Your task to perform on an android device: Open settings on Google Maps Image 0: 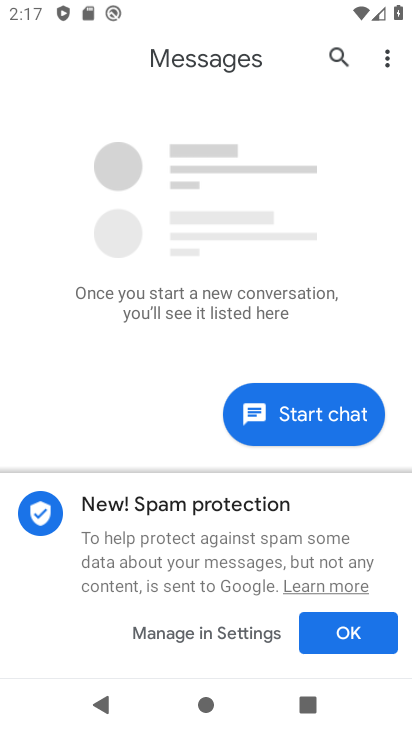
Step 0: press home button
Your task to perform on an android device: Open settings on Google Maps Image 1: 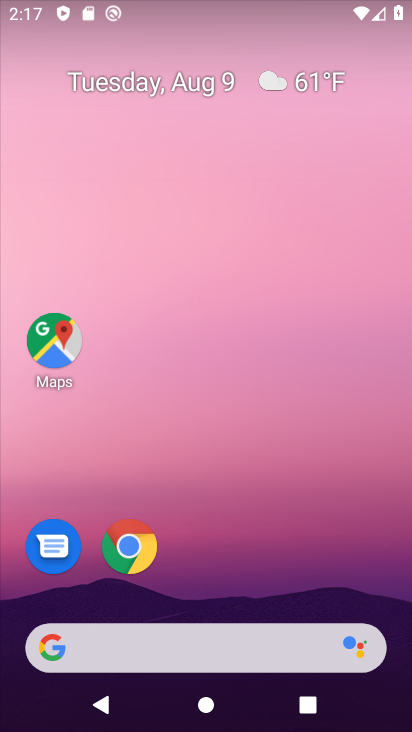
Step 1: click (60, 337)
Your task to perform on an android device: Open settings on Google Maps Image 2: 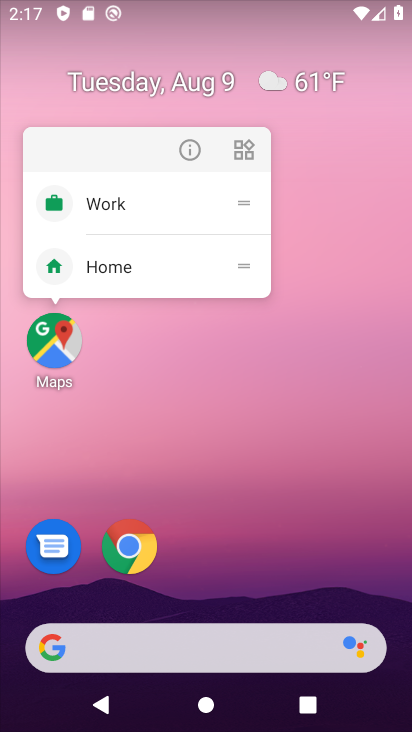
Step 2: click (60, 337)
Your task to perform on an android device: Open settings on Google Maps Image 3: 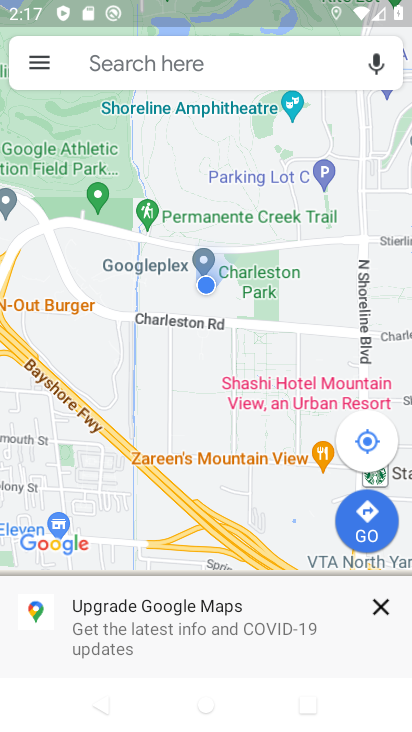
Step 3: click (27, 43)
Your task to perform on an android device: Open settings on Google Maps Image 4: 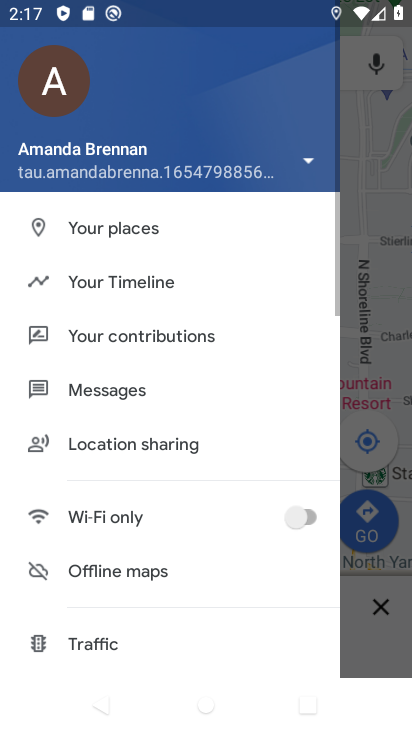
Step 4: click (38, 48)
Your task to perform on an android device: Open settings on Google Maps Image 5: 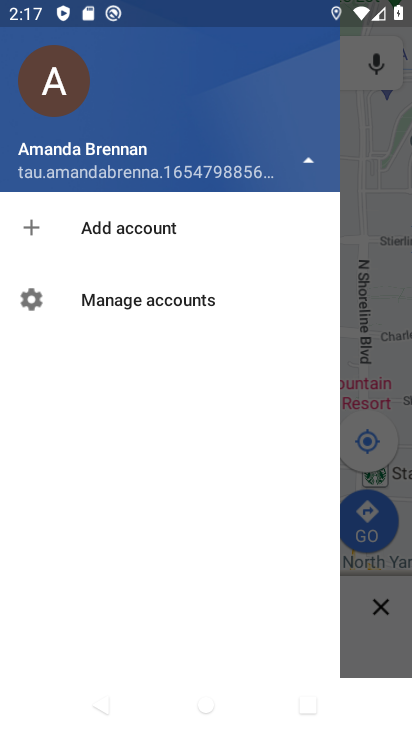
Step 5: click (361, 130)
Your task to perform on an android device: Open settings on Google Maps Image 6: 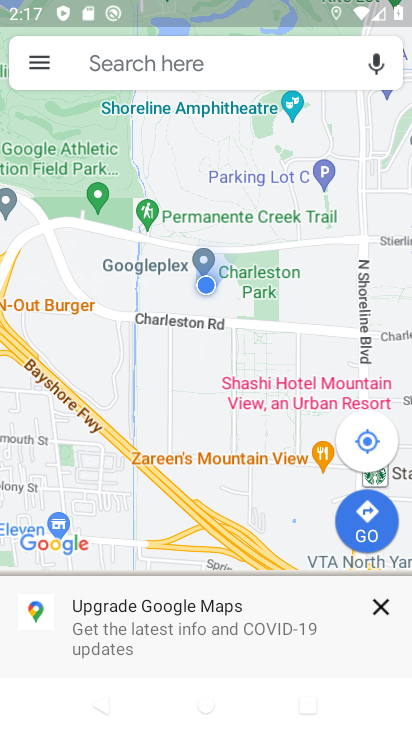
Step 6: click (34, 68)
Your task to perform on an android device: Open settings on Google Maps Image 7: 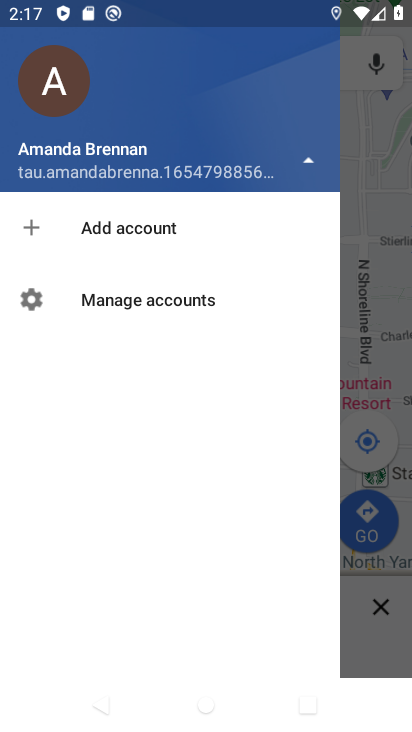
Step 7: click (293, 172)
Your task to perform on an android device: Open settings on Google Maps Image 8: 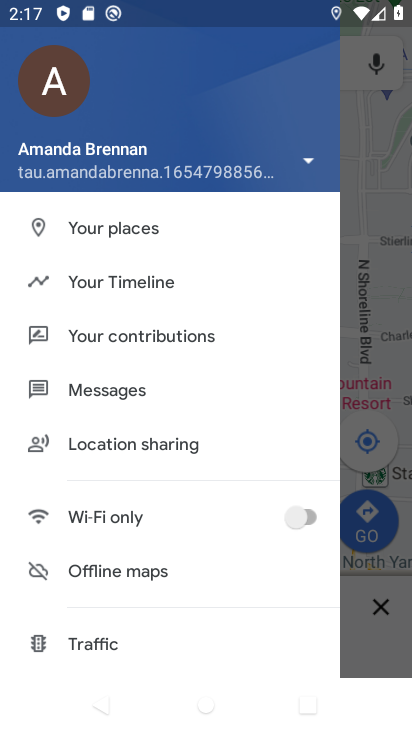
Step 8: click (190, 332)
Your task to perform on an android device: Open settings on Google Maps Image 9: 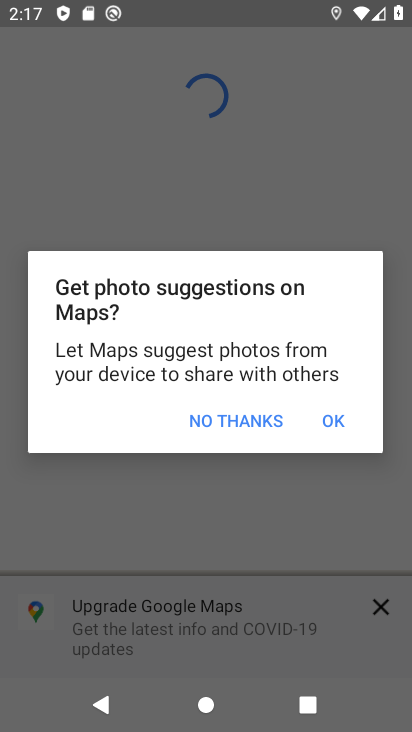
Step 9: drag from (249, 613) to (221, 478)
Your task to perform on an android device: Open settings on Google Maps Image 10: 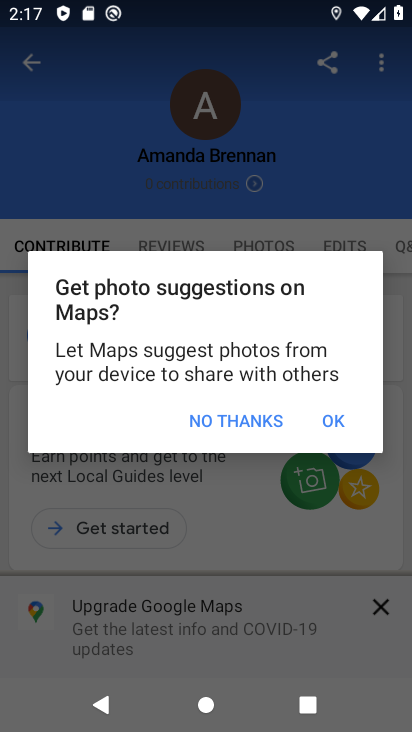
Step 10: click (250, 409)
Your task to perform on an android device: Open settings on Google Maps Image 11: 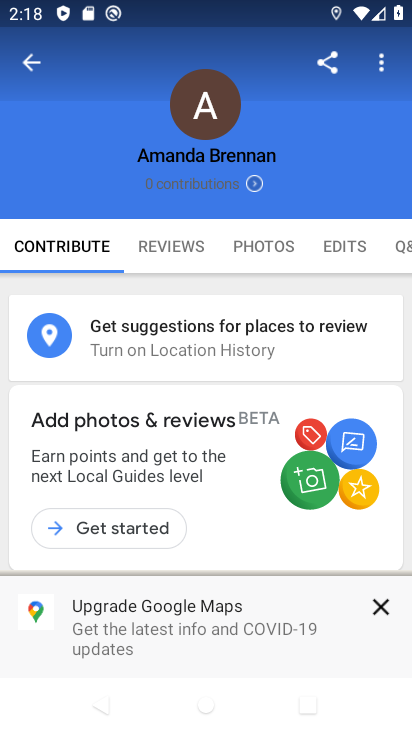
Step 11: click (35, 43)
Your task to perform on an android device: Open settings on Google Maps Image 12: 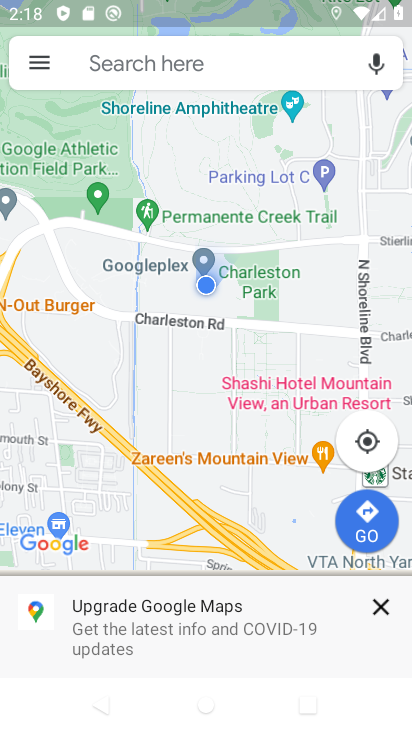
Step 12: click (46, 69)
Your task to perform on an android device: Open settings on Google Maps Image 13: 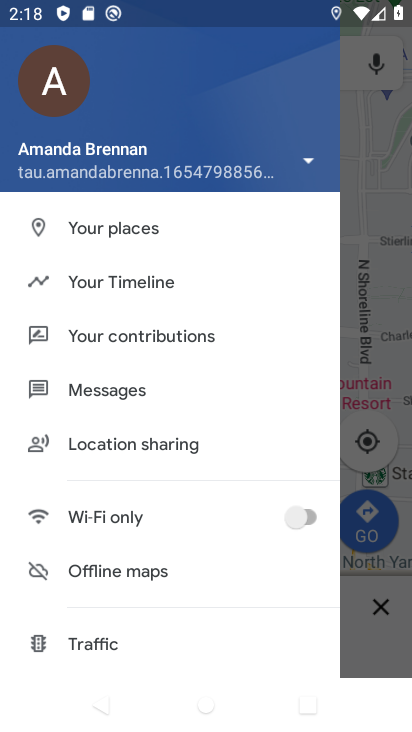
Step 13: drag from (127, 600) to (159, 213)
Your task to perform on an android device: Open settings on Google Maps Image 14: 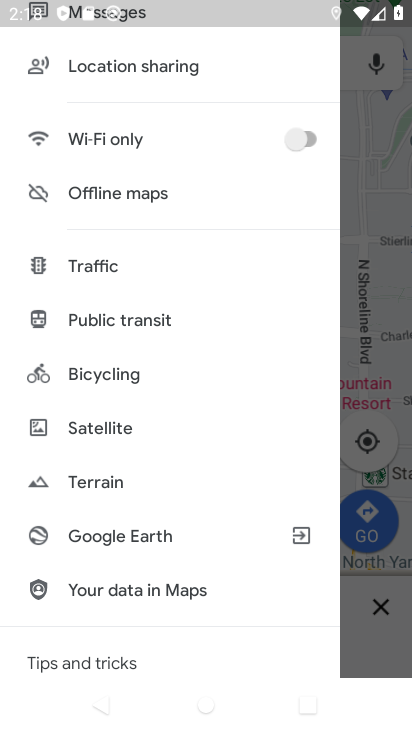
Step 14: drag from (177, 651) to (218, 121)
Your task to perform on an android device: Open settings on Google Maps Image 15: 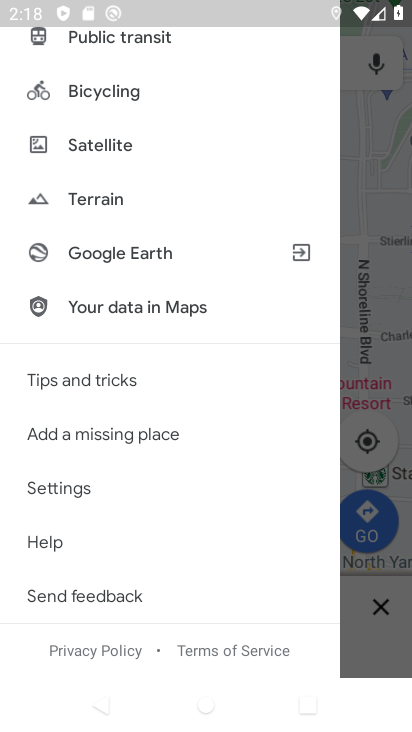
Step 15: click (80, 486)
Your task to perform on an android device: Open settings on Google Maps Image 16: 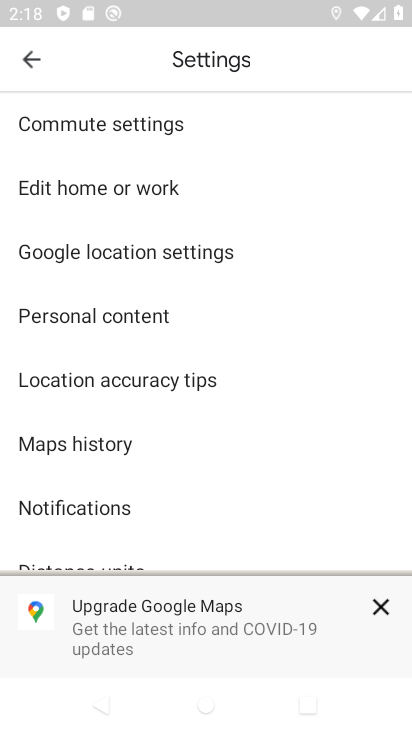
Step 16: task complete